Your task to perform on an android device: Open privacy settings Image 0: 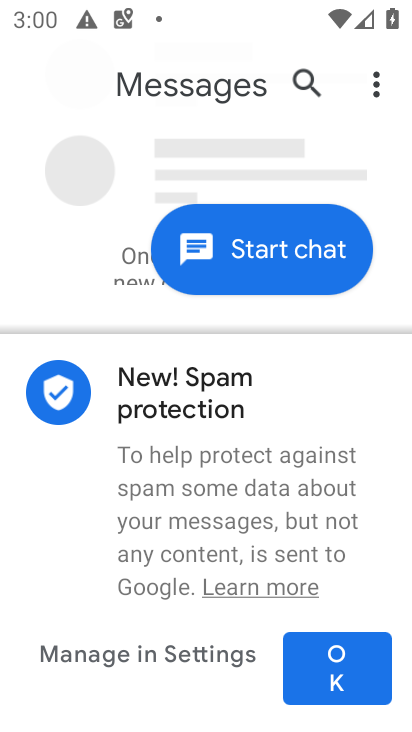
Step 0: press home button
Your task to perform on an android device: Open privacy settings Image 1: 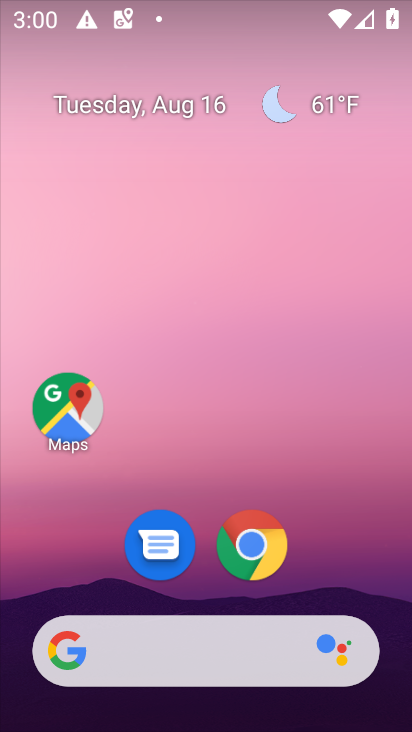
Step 1: drag from (180, 592) to (131, 29)
Your task to perform on an android device: Open privacy settings Image 2: 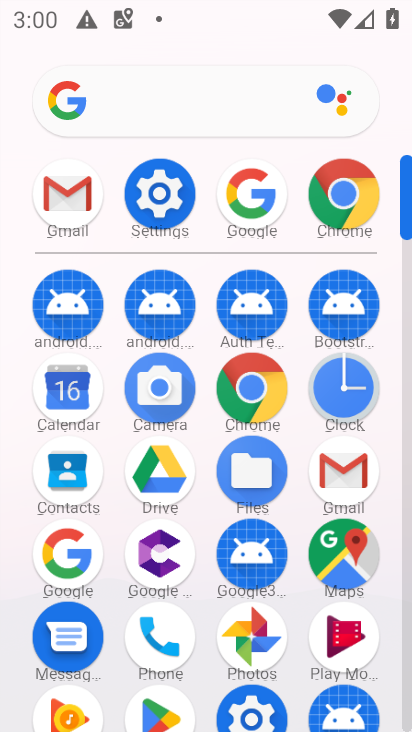
Step 2: click (169, 195)
Your task to perform on an android device: Open privacy settings Image 3: 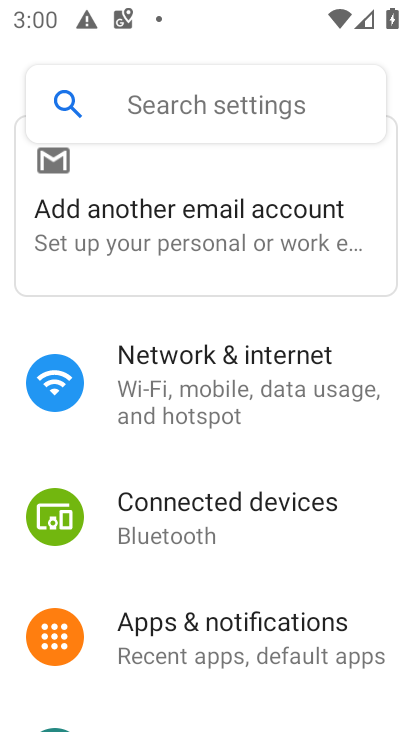
Step 3: drag from (143, 628) to (120, 235)
Your task to perform on an android device: Open privacy settings Image 4: 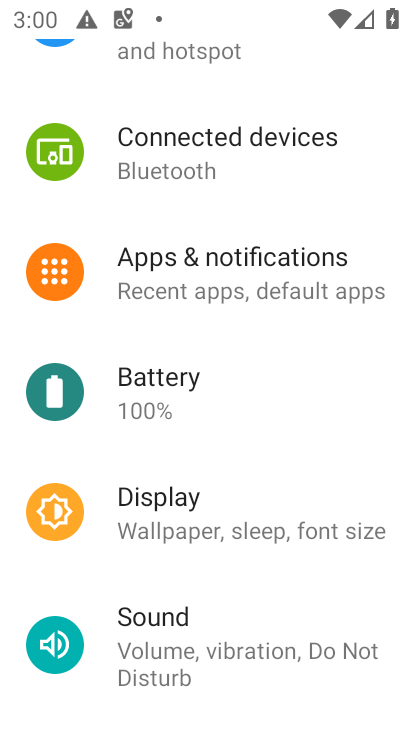
Step 4: drag from (207, 662) to (170, 203)
Your task to perform on an android device: Open privacy settings Image 5: 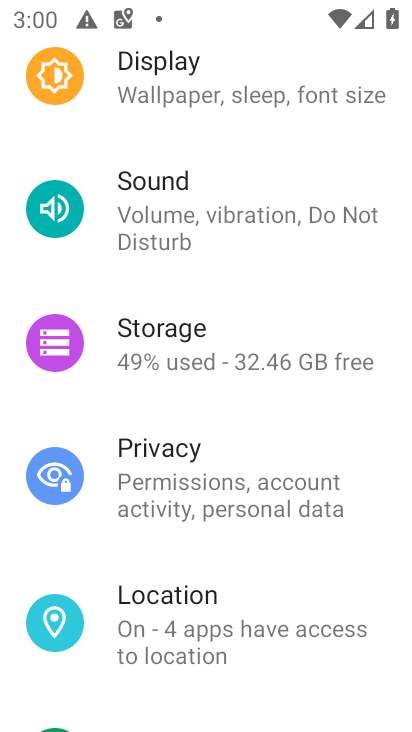
Step 5: click (203, 464)
Your task to perform on an android device: Open privacy settings Image 6: 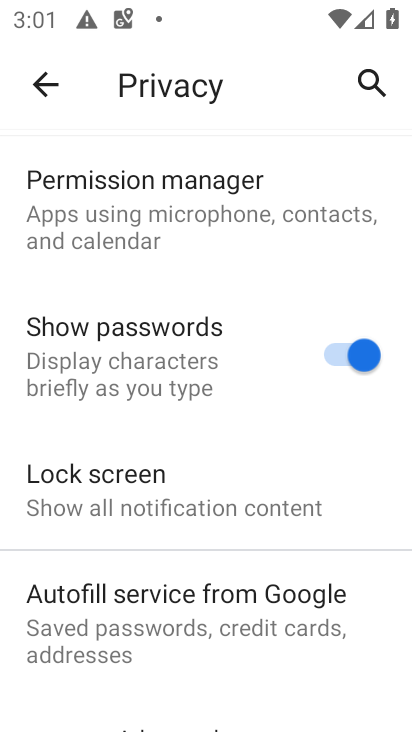
Step 6: task complete